Your task to perform on an android device: find photos in the google photos app Image 0: 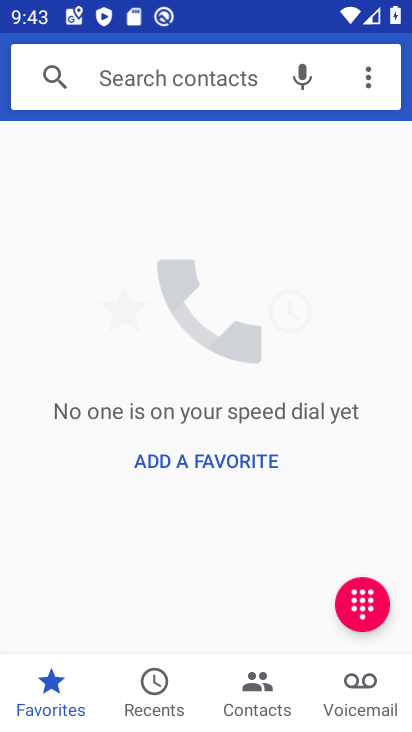
Step 0: press home button
Your task to perform on an android device: find photos in the google photos app Image 1: 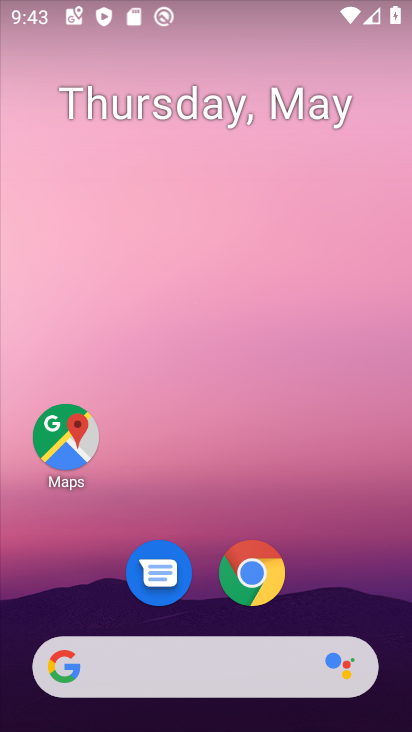
Step 1: drag from (195, 625) to (226, 240)
Your task to perform on an android device: find photos in the google photos app Image 2: 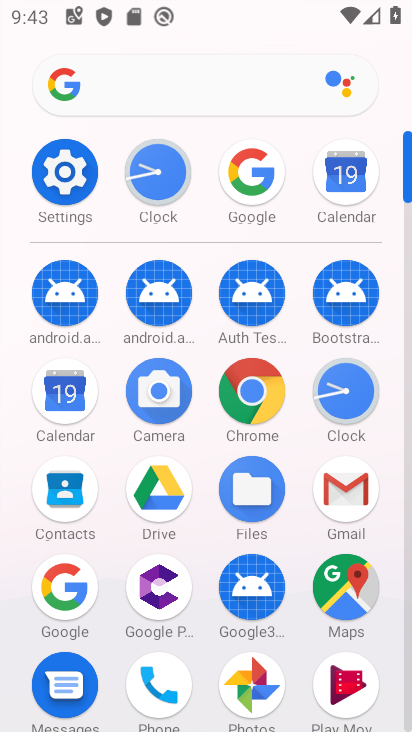
Step 2: click (245, 699)
Your task to perform on an android device: find photos in the google photos app Image 3: 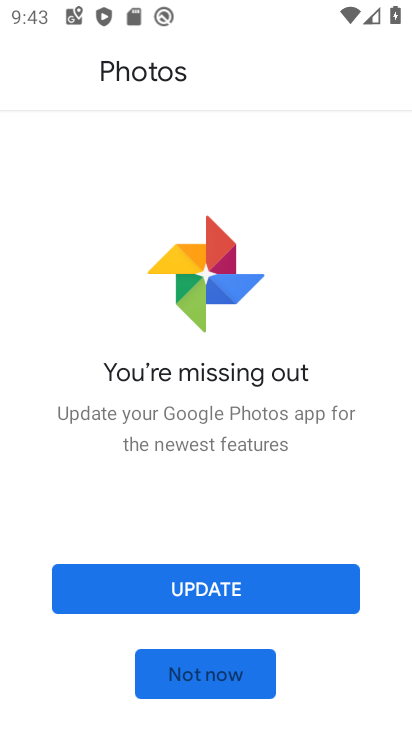
Step 3: click (248, 664)
Your task to perform on an android device: find photos in the google photos app Image 4: 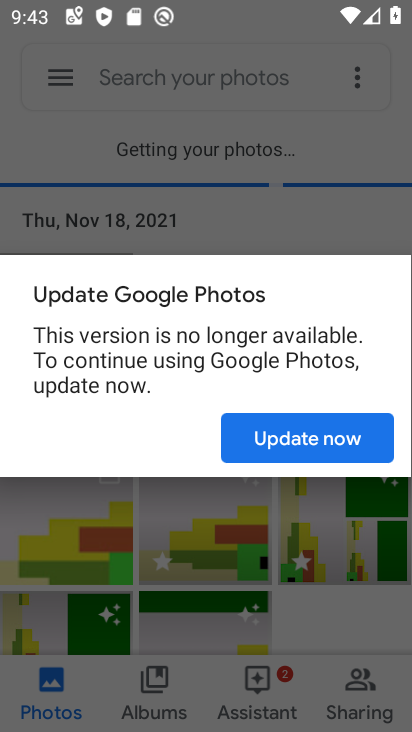
Step 4: click (253, 427)
Your task to perform on an android device: find photos in the google photos app Image 5: 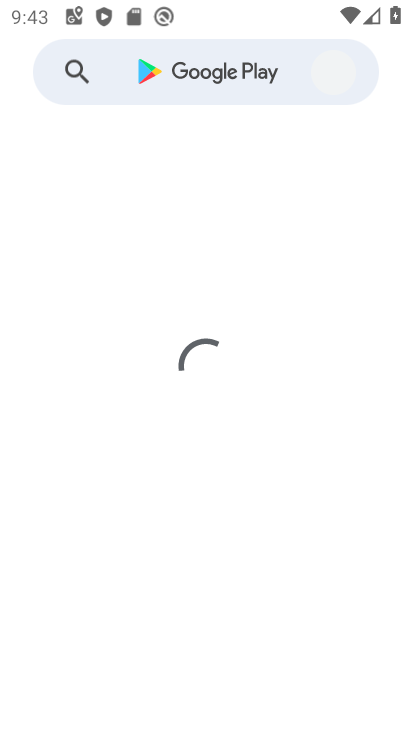
Step 5: press back button
Your task to perform on an android device: find photos in the google photos app Image 6: 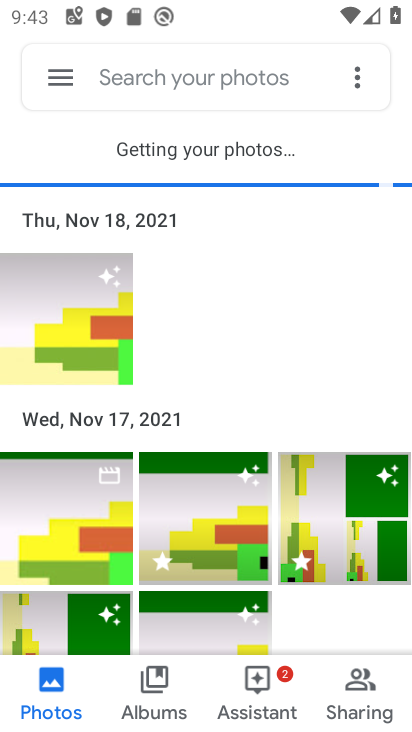
Step 6: click (200, 73)
Your task to perform on an android device: find photos in the google photos app Image 7: 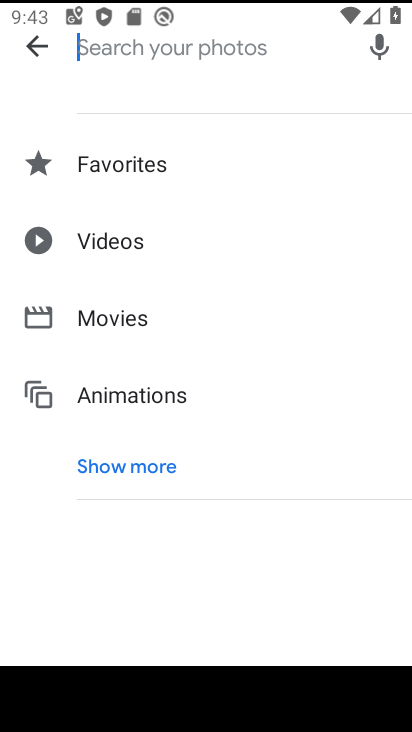
Step 7: type "aa"
Your task to perform on an android device: find photos in the google photos app Image 8: 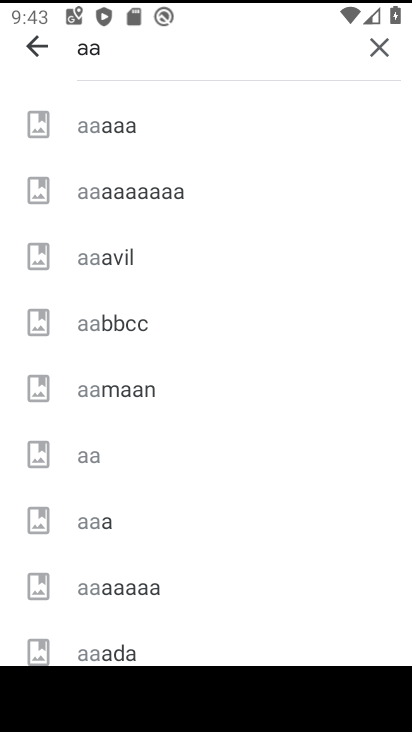
Step 8: click (88, 131)
Your task to perform on an android device: find photos in the google photos app Image 9: 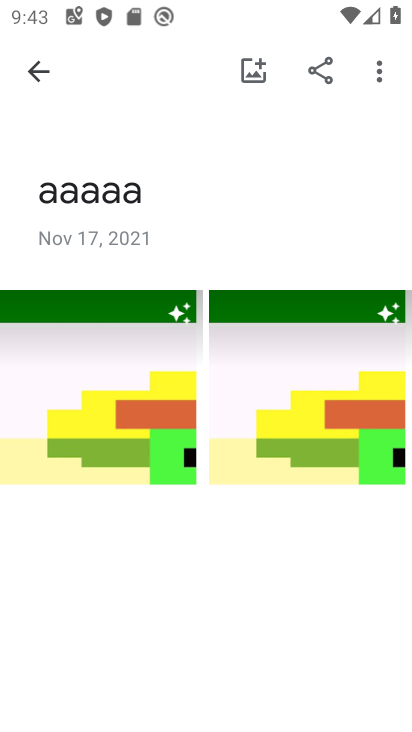
Step 9: task complete